Your task to perform on an android device: set default search engine in the chrome app Image 0: 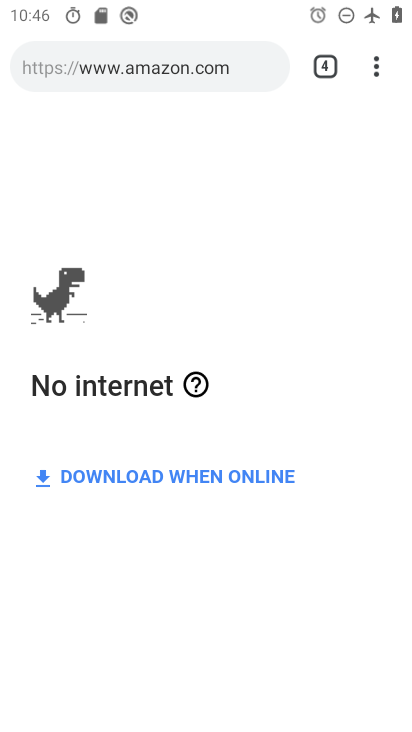
Step 0: press home button
Your task to perform on an android device: set default search engine in the chrome app Image 1: 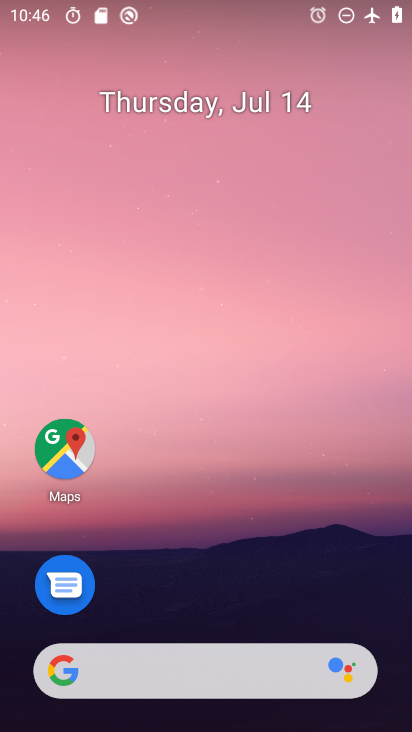
Step 1: drag from (211, 624) to (109, 1)
Your task to perform on an android device: set default search engine in the chrome app Image 2: 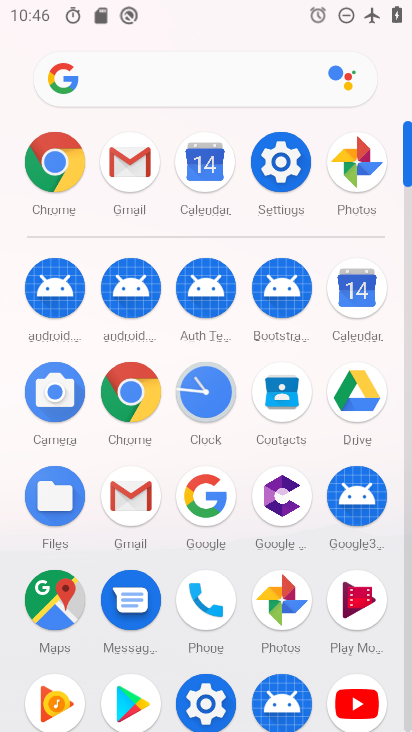
Step 2: click (129, 407)
Your task to perform on an android device: set default search engine in the chrome app Image 3: 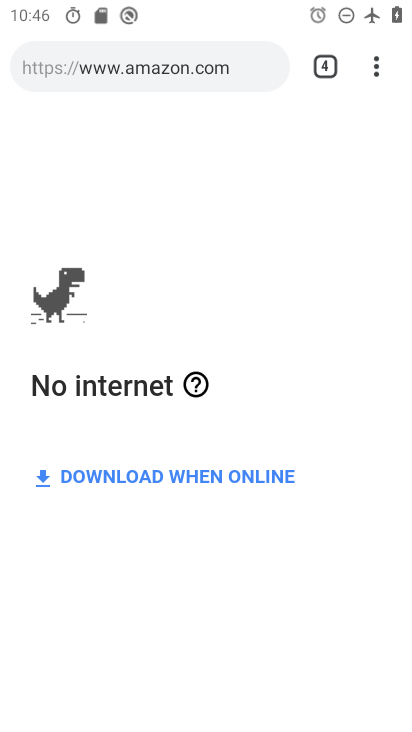
Step 3: click (379, 62)
Your task to perform on an android device: set default search engine in the chrome app Image 4: 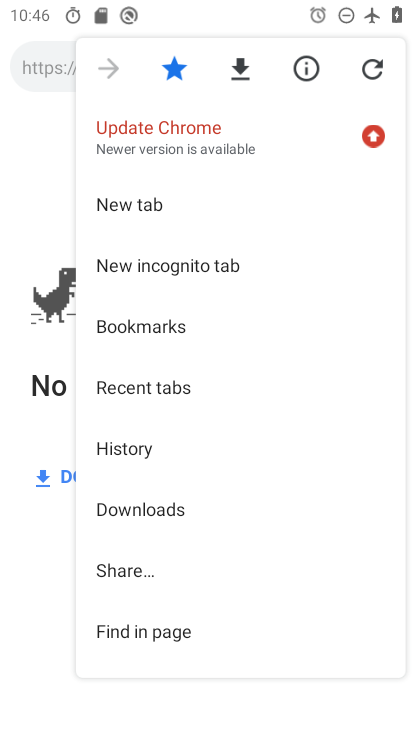
Step 4: drag from (177, 554) to (87, 125)
Your task to perform on an android device: set default search engine in the chrome app Image 5: 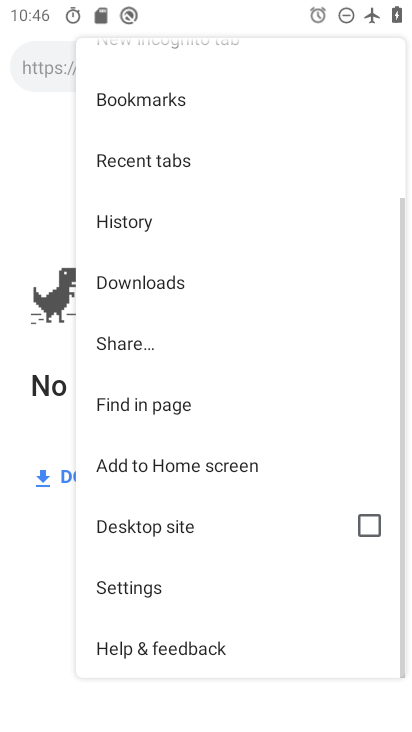
Step 5: click (127, 578)
Your task to perform on an android device: set default search engine in the chrome app Image 6: 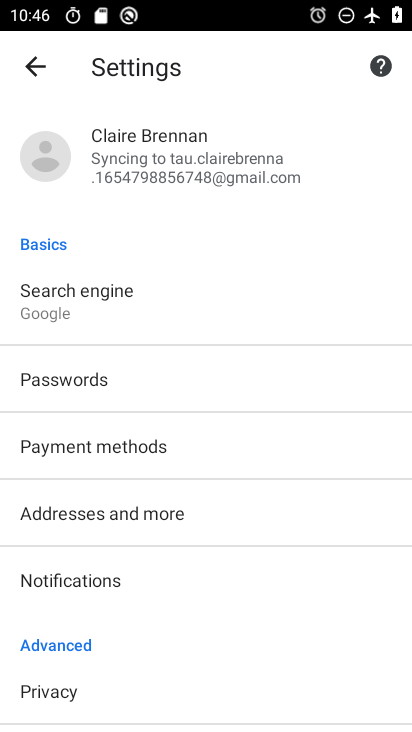
Step 6: click (73, 324)
Your task to perform on an android device: set default search engine in the chrome app Image 7: 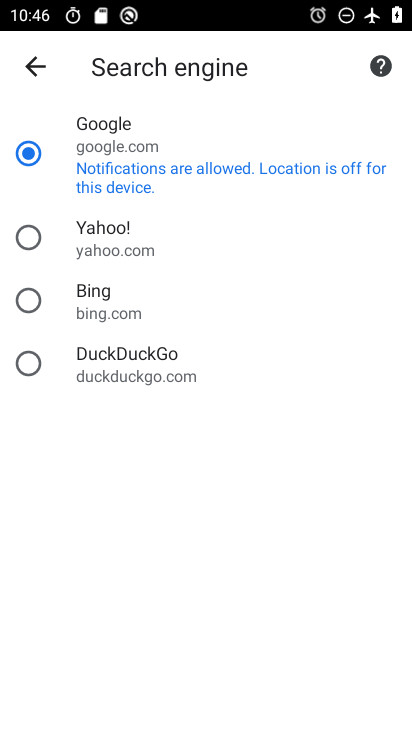
Step 7: click (41, 141)
Your task to perform on an android device: set default search engine in the chrome app Image 8: 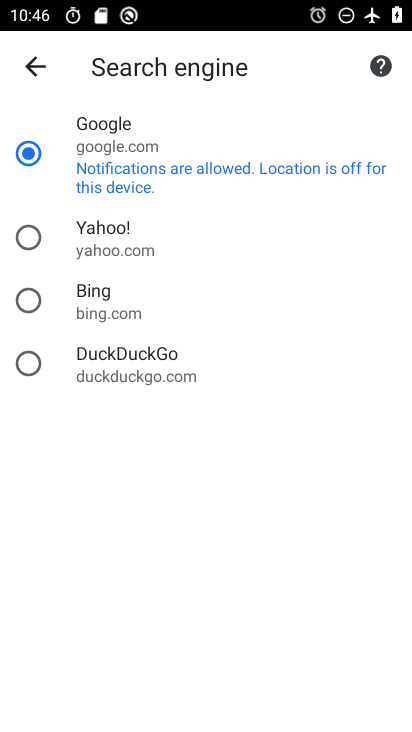
Step 8: task complete